Your task to perform on an android device: Search for sushi restaurants on Maps Image 0: 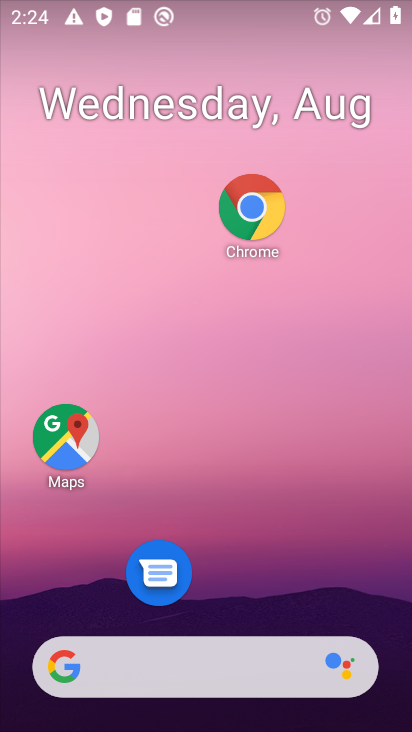
Step 0: drag from (224, 723) to (385, 204)
Your task to perform on an android device: Search for sushi restaurants on Maps Image 1: 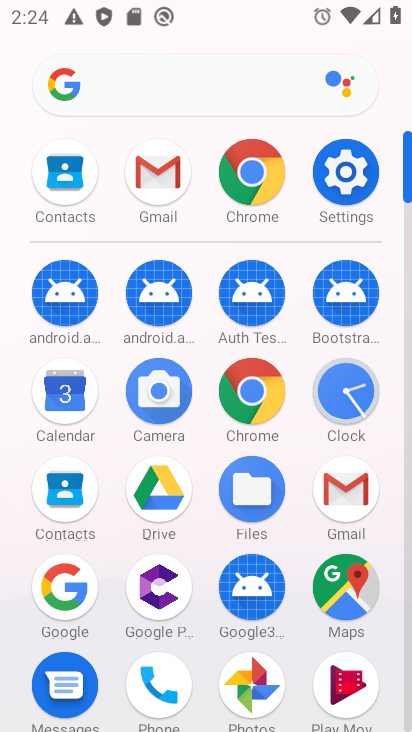
Step 1: click (343, 582)
Your task to perform on an android device: Search for sushi restaurants on Maps Image 2: 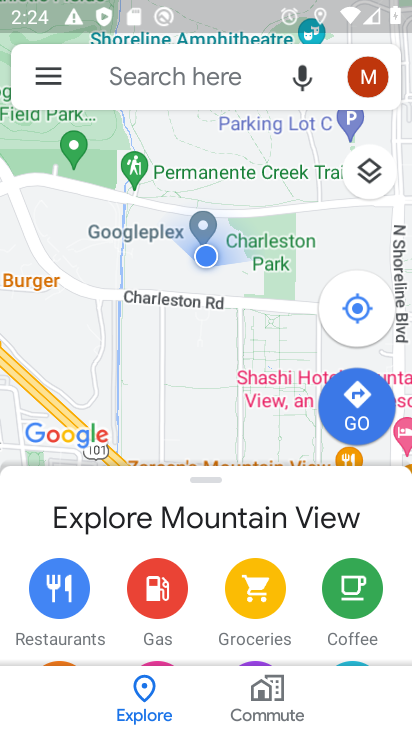
Step 2: click (175, 81)
Your task to perform on an android device: Search for sushi restaurants on Maps Image 3: 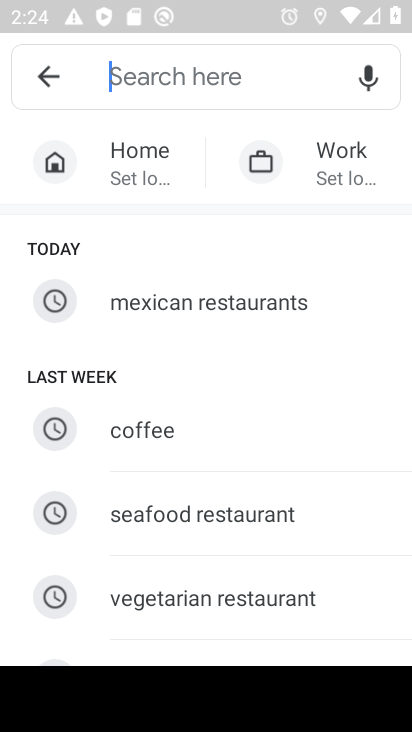
Step 3: drag from (183, 555) to (190, 294)
Your task to perform on an android device: Search for sushi restaurants on Maps Image 4: 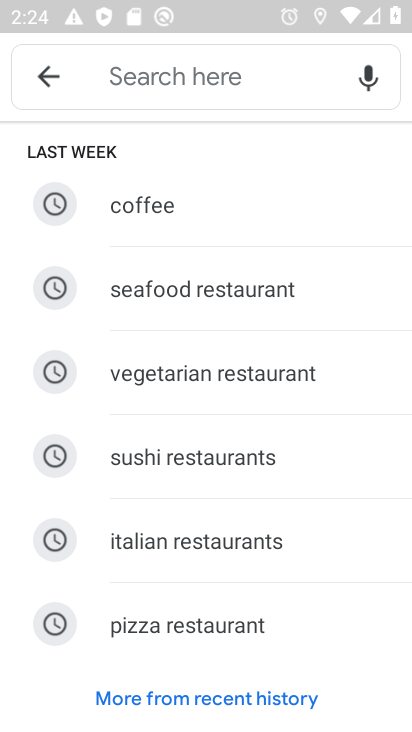
Step 4: click (176, 464)
Your task to perform on an android device: Search for sushi restaurants on Maps Image 5: 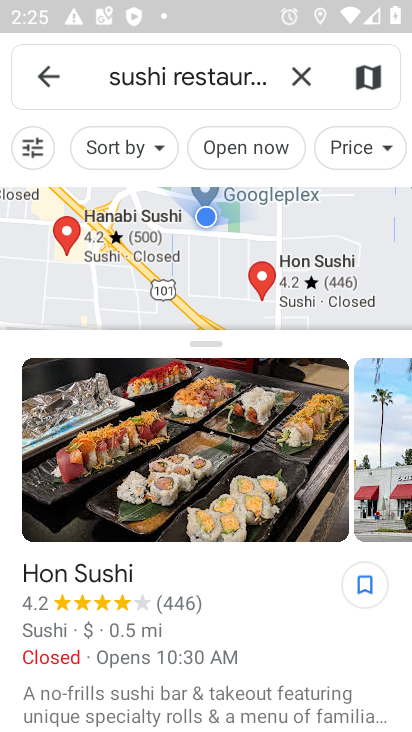
Step 5: task complete